Your task to perform on an android device: Open wifi settings Image 0: 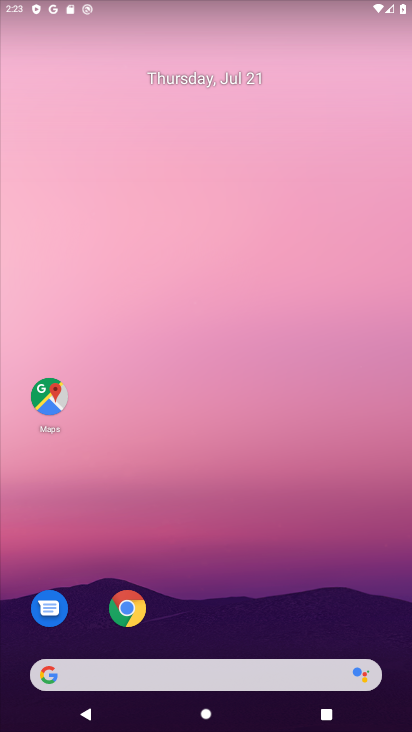
Step 0: drag from (205, 648) to (191, 143)
Your task to perform on an android device: Open wifi settings Image 1: 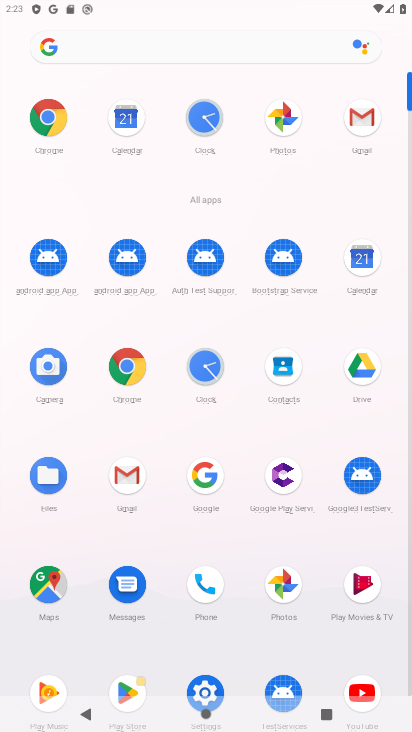
Step 1: click (208, 680)
Your task to perform on an android device: Open wifi settings Image 2: 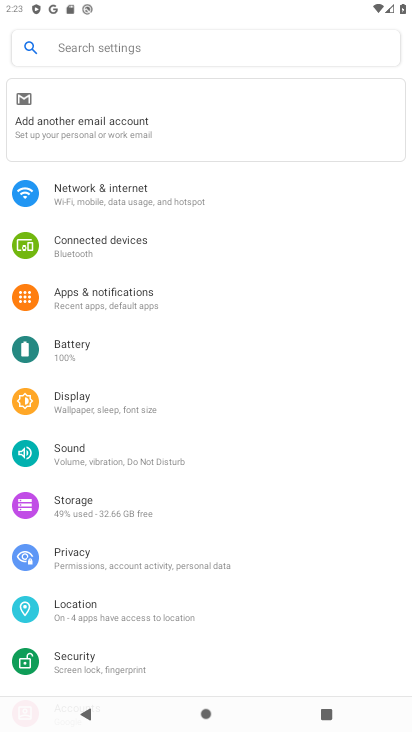
Step 2: click (76, 202)
Your task to perform on an android device: Open wifi settings Image 3: 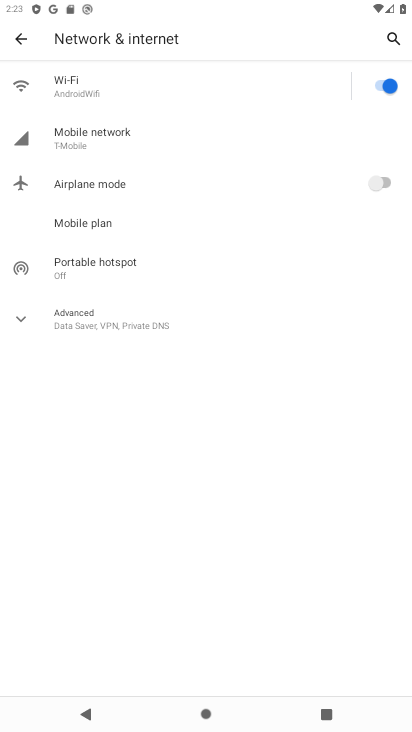
Step 3: click (64, 105)
Your task to perform on an android device: Open wifi settings Image 4: 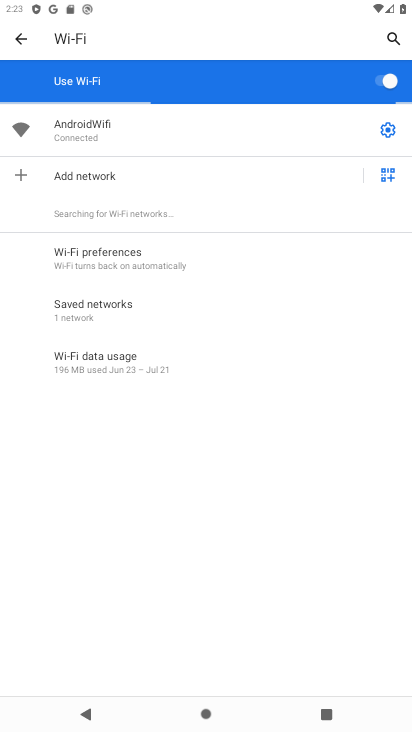
Step 4: task complete